Your task to perform on an android device: Go to Yahoo.com Image 0: 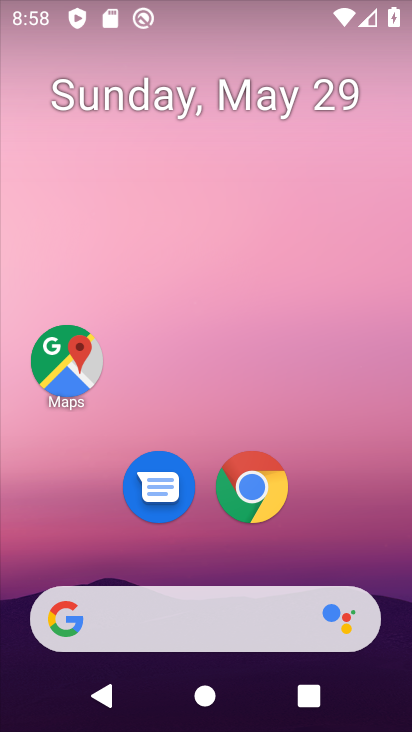
Step 0: click (265, 514)
Your task to perform on an android device: Go to Yahoo.com Image 1: 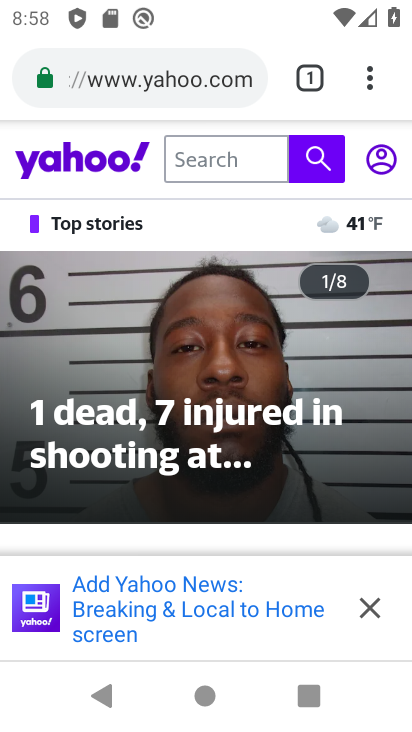
Step 1: click (372, 603)
Your task to perform on an android device: Go to Yahoo.com Image 2: 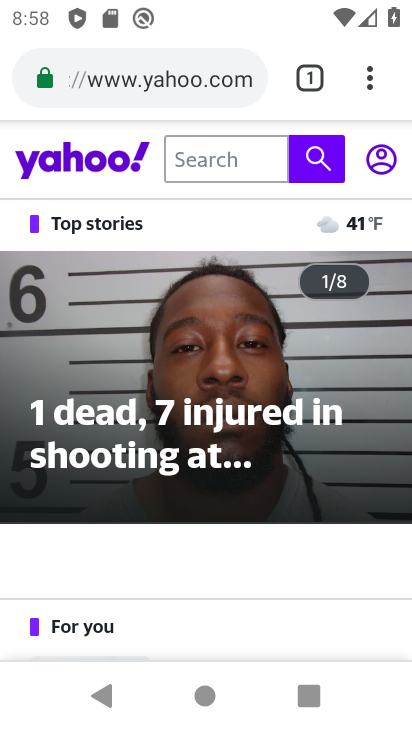
Step 2: task complete